Your task to perform on an android device: Open the stopwatch Image 0: 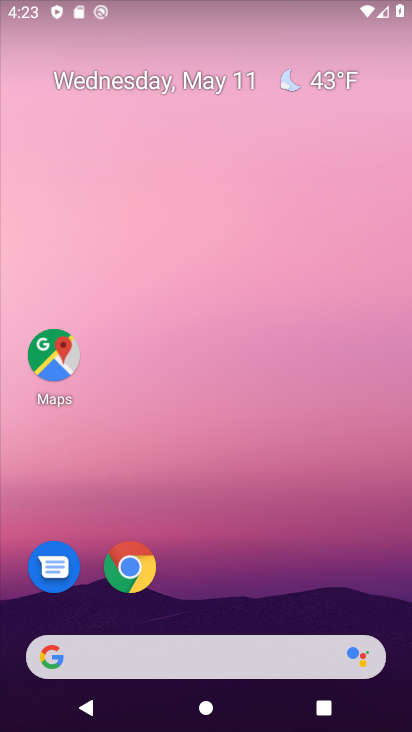
Step 0: drag from (229, 572) to (273, 102)
Your task to perform on an android device: Open the stopwatch Image 1: 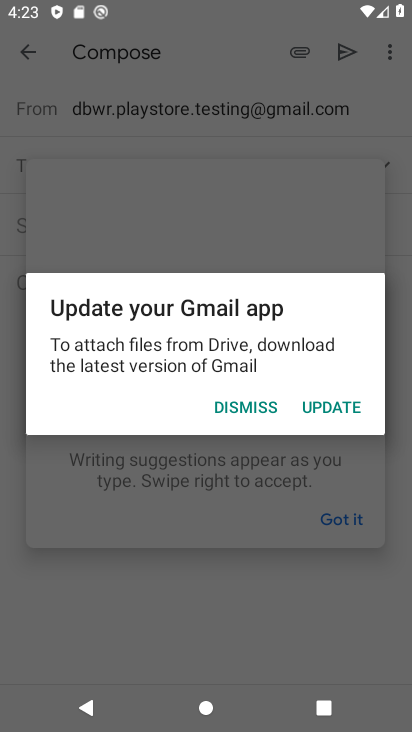
Step 1: press home button
Your task to perform on an android device: Open the stopwatch Image 2: 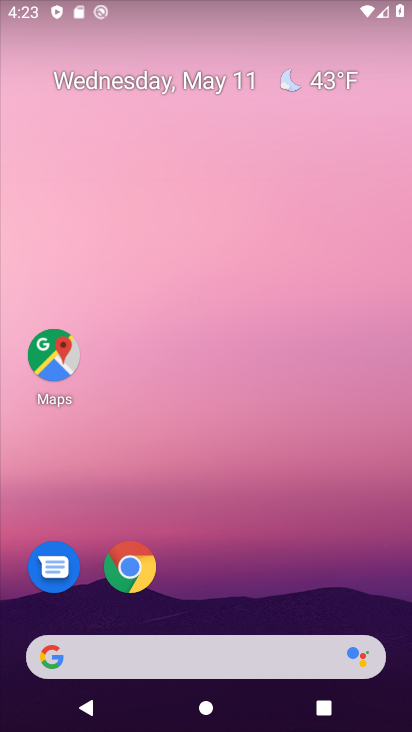
Step 2: drag from (225, 607) to (275, 152)
Your task to perform on an android device: Open the stopwatch Image 3: 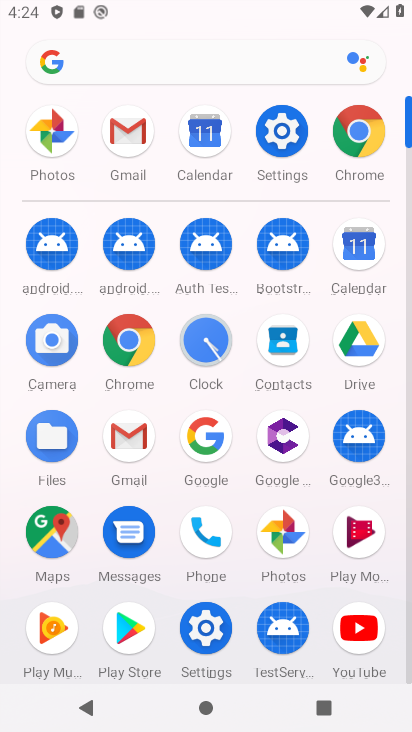
Step 3: click (214, 342)
Your task to perform on an android device: Open the stopwatch Image 4: 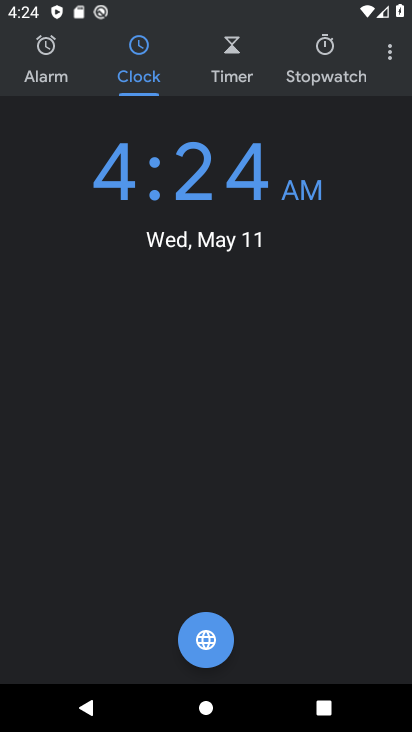
Step 4: click (339, 59)
Your task to perform on an android device: Open the stopwatch Image 5: 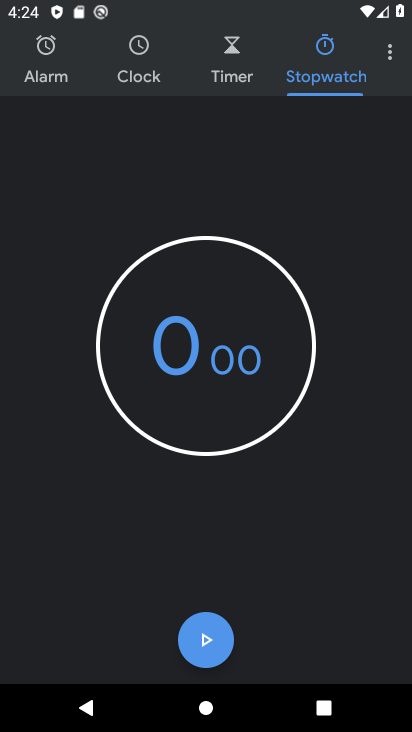
Step 5: task complete